Your task to perform on an android device: open app "Instagram" (install if not already installed) Image 0: 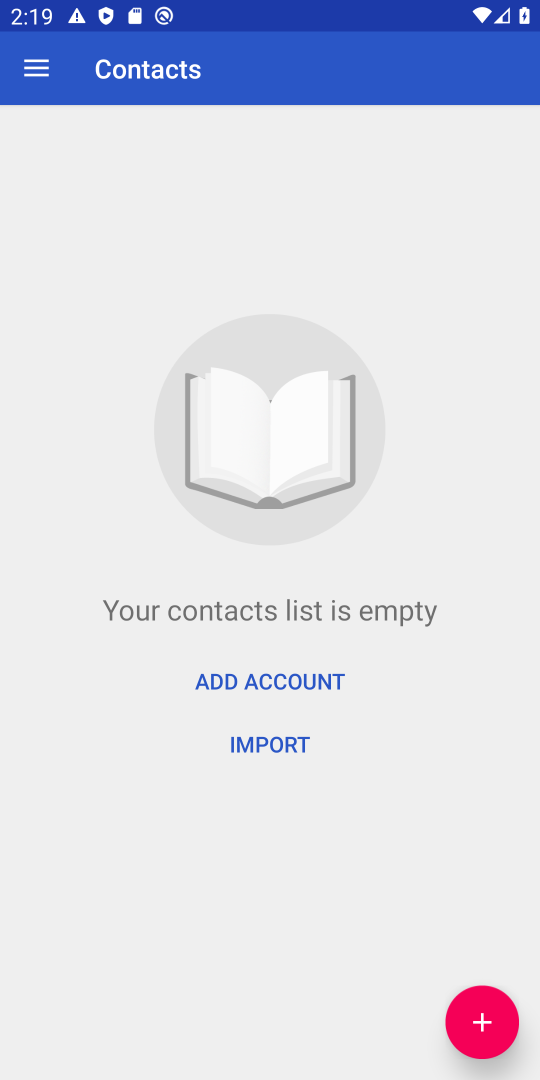
Step 0: press home button
Your task to perform on an android device: open app "Instagram" (install if not already installed) Image 1: 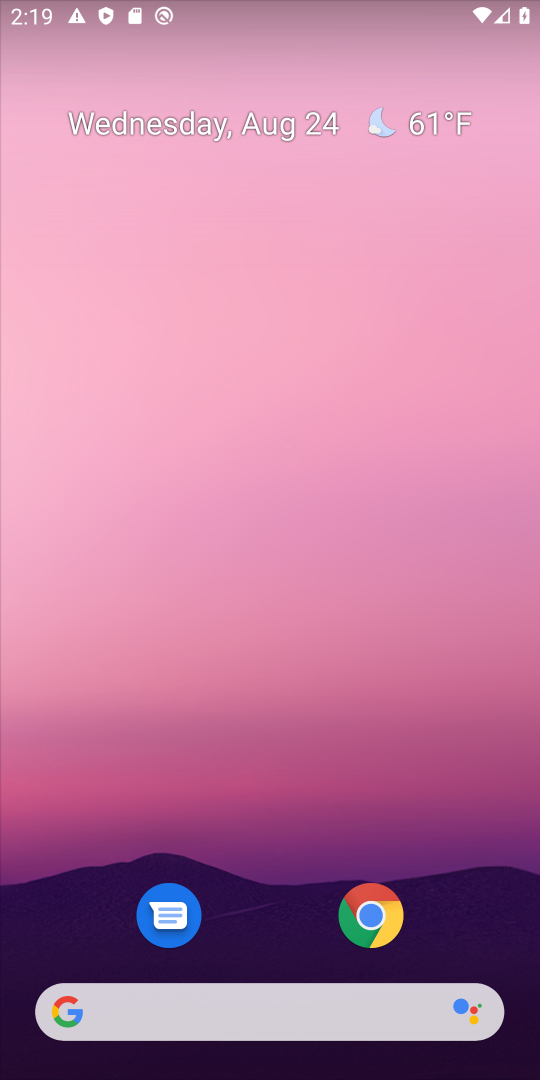
Step 1: drag from (274, 792) to (281, 123)
Your task to perform on an android device: open app "Instagram" (install if not already installed) Image 2: 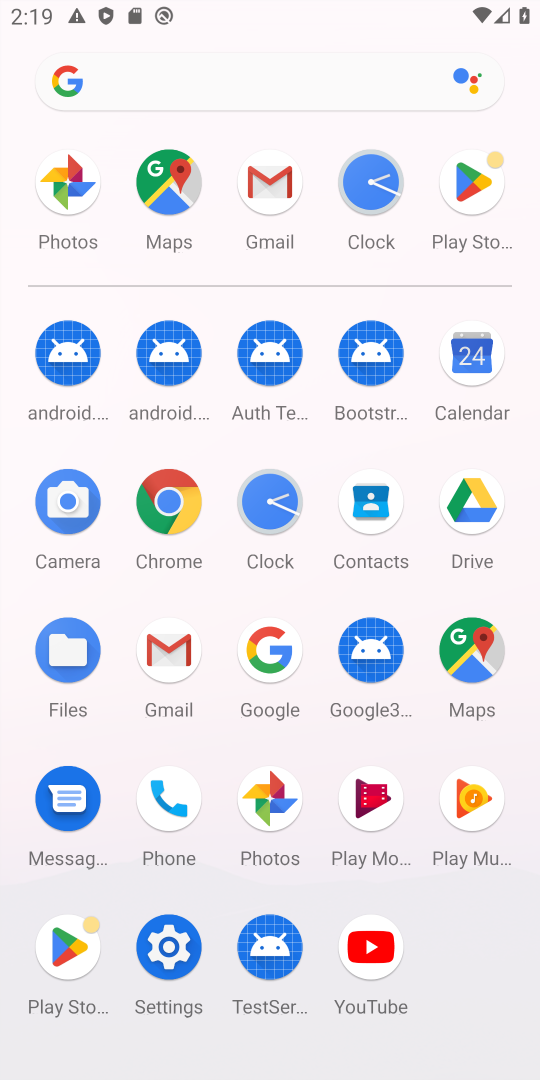
Step 2: click (458, 191)
Your task to perform on an android device: open app "Instagram" (install if not already installed) Image 3: 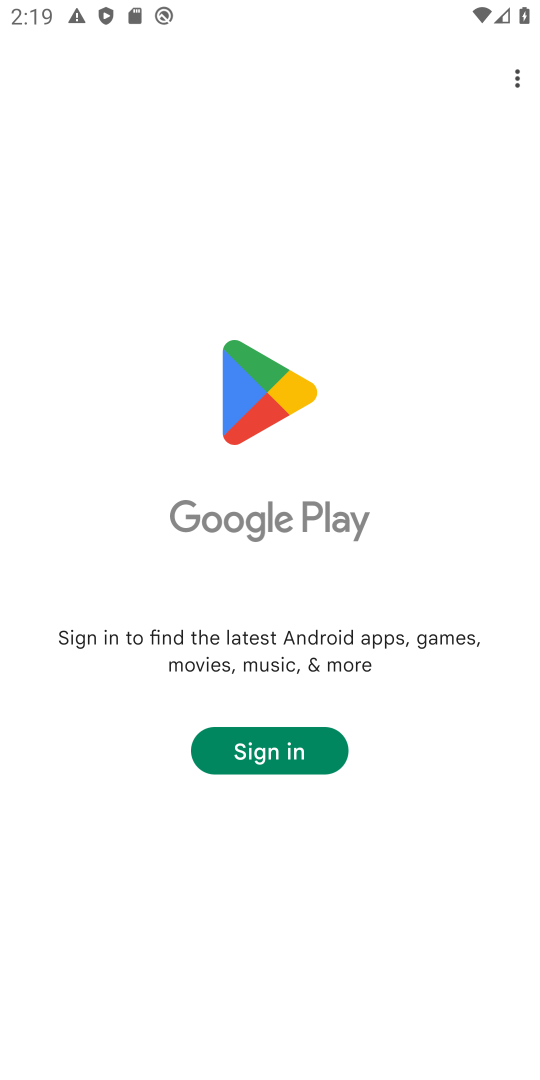
Step 3: task complete